Your task to perform on an android device: turn on priority inbox in the gmail app Image 0: 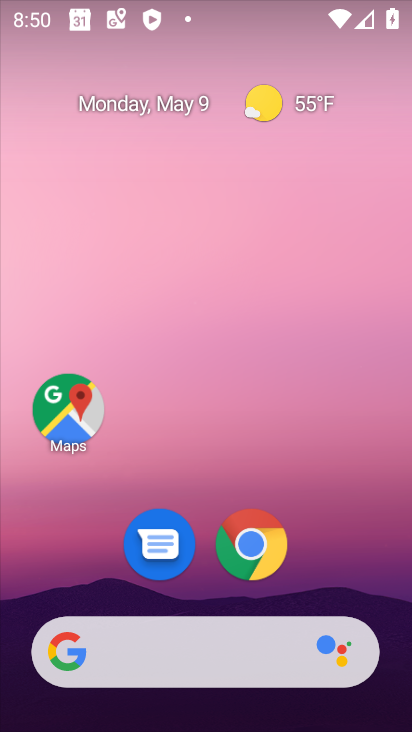
Step 0: drag from (199, 591) to (214, 160)
Your task to perform on an android device: turn on priority inbox in the gmail app Image 1: 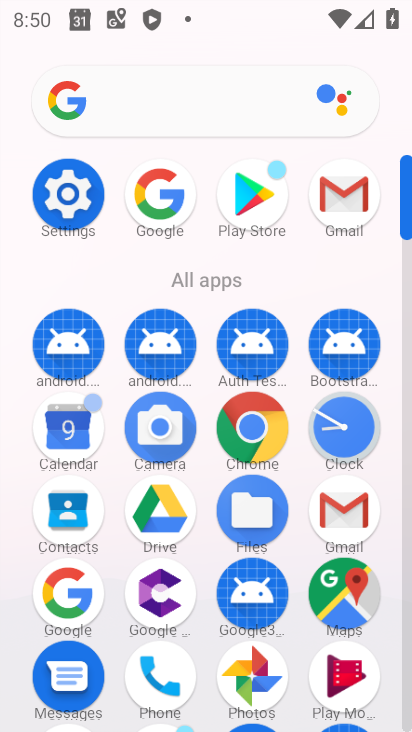
Step 1: click (331, 218)
Your task to perform on an android device: turn on priority inbox in the gmail app Image 2: 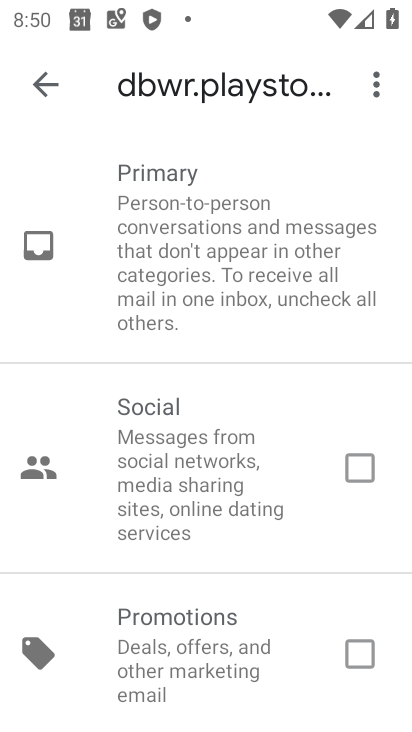
Step 2: click (57, 78)
Your task to perform on an android device: turn on priority inbox in the gmail app Image 3: 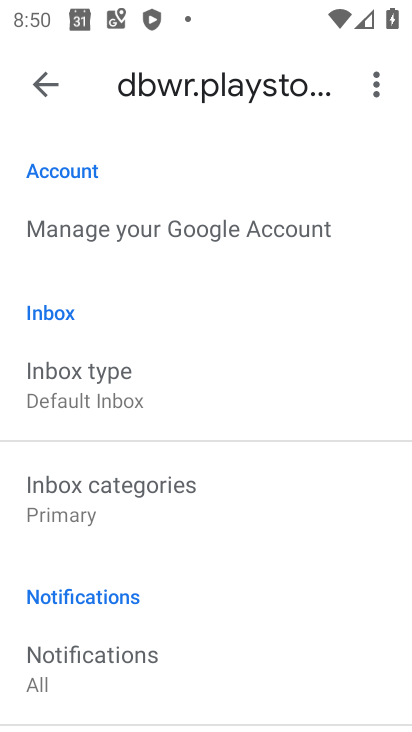
Step 3: click (77, 374)
Your task to perform on an android device: turn on priority inbox in the gmail app Image 4: 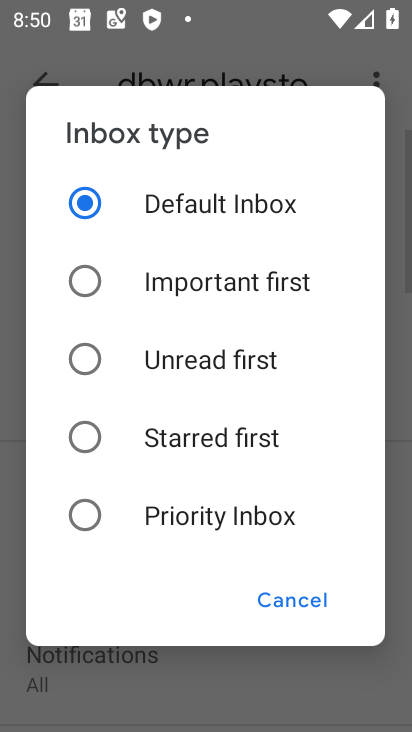
Step 4: click (134, 495)
Your task to perform on an android device: turn on priority inbox in the gmail app Image 5: 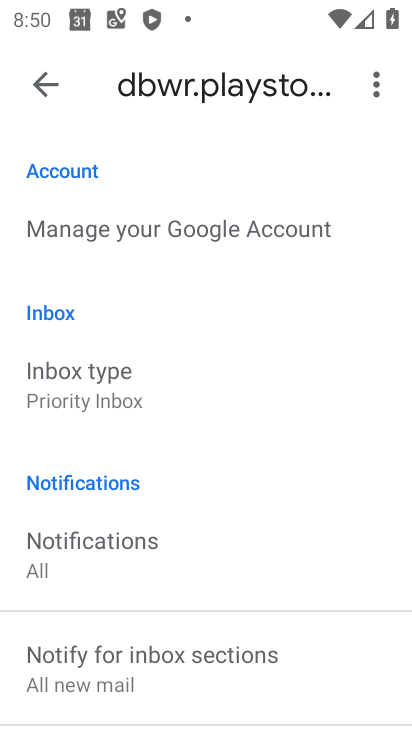
Step 5: task complete